Your task to perform on an android device: clear history in the chrome app Image 0: 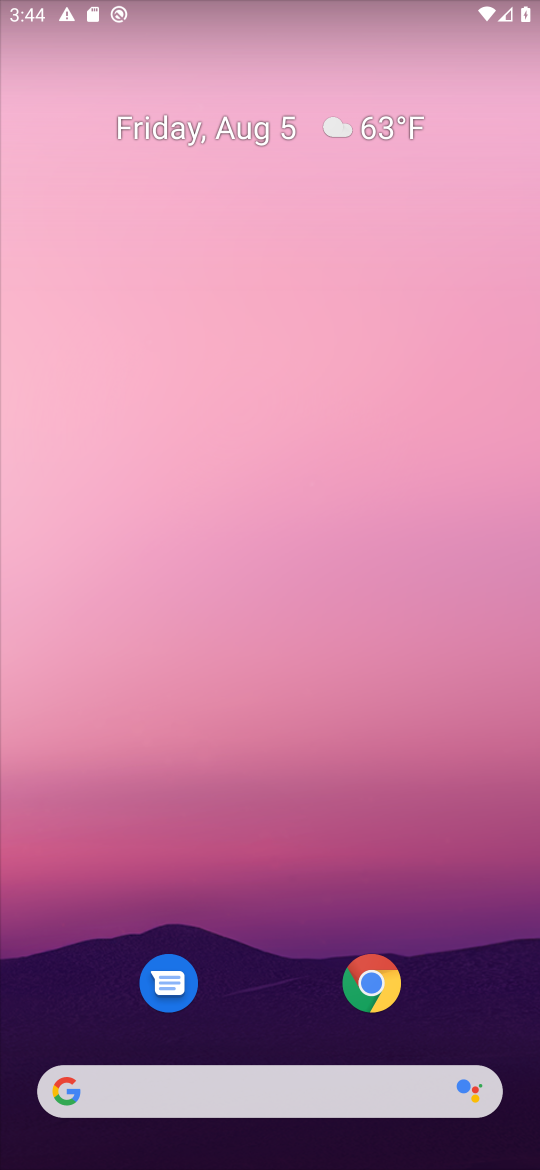
Step 0: click (380, 980)
Your task to perform on an android device: clear history in the chrome app Image 1: 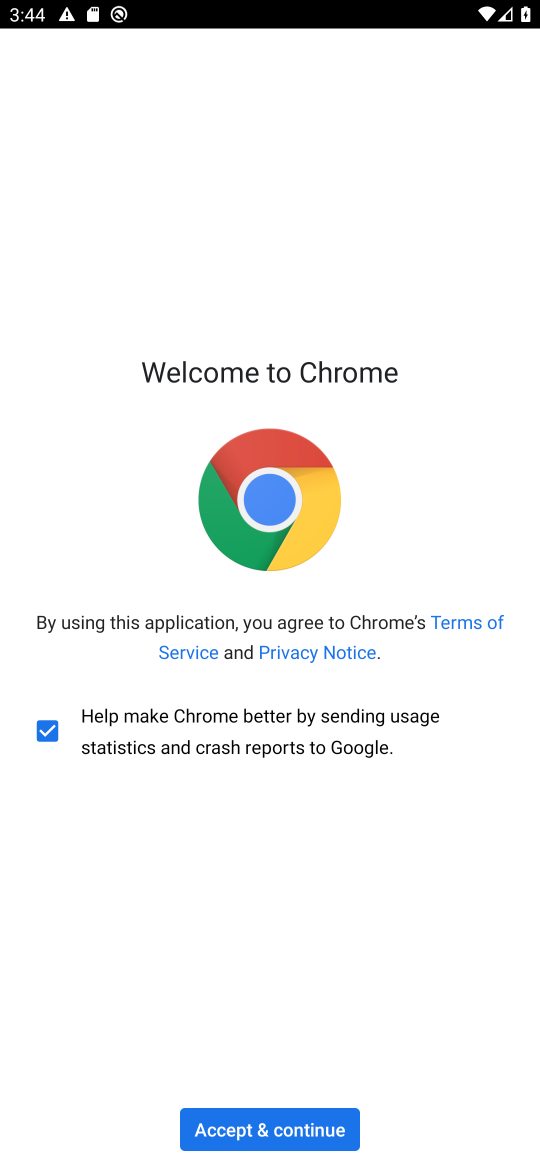
Step 1: click (284, 1139)
Your task to perform on an android device: clear history in the chrome app Image 2: 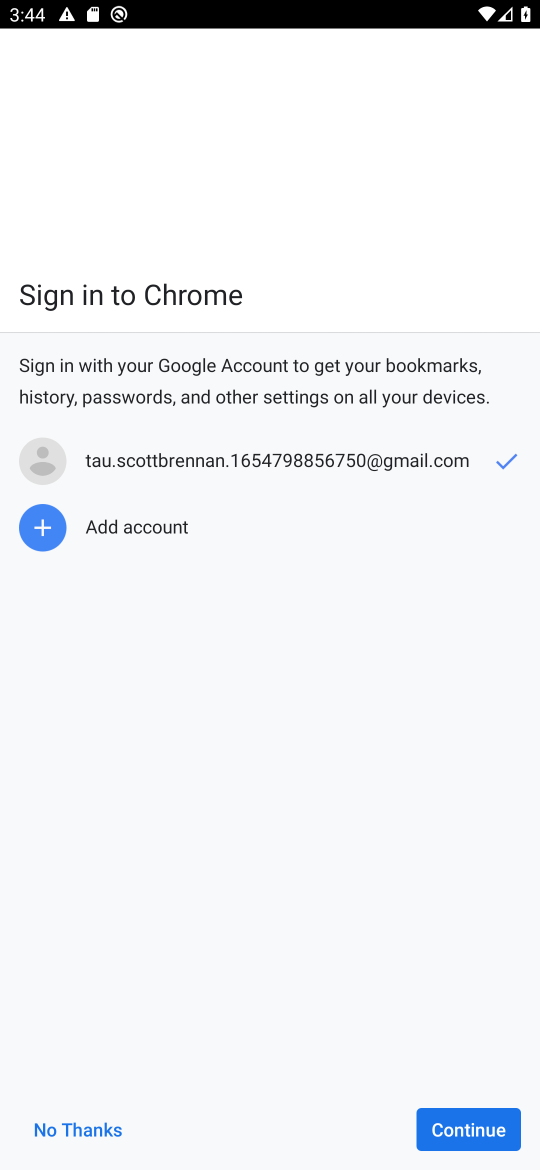
Step 2: click (458, 1137)
Your task to perform on an android device: clear history in the chrome app Image 3: 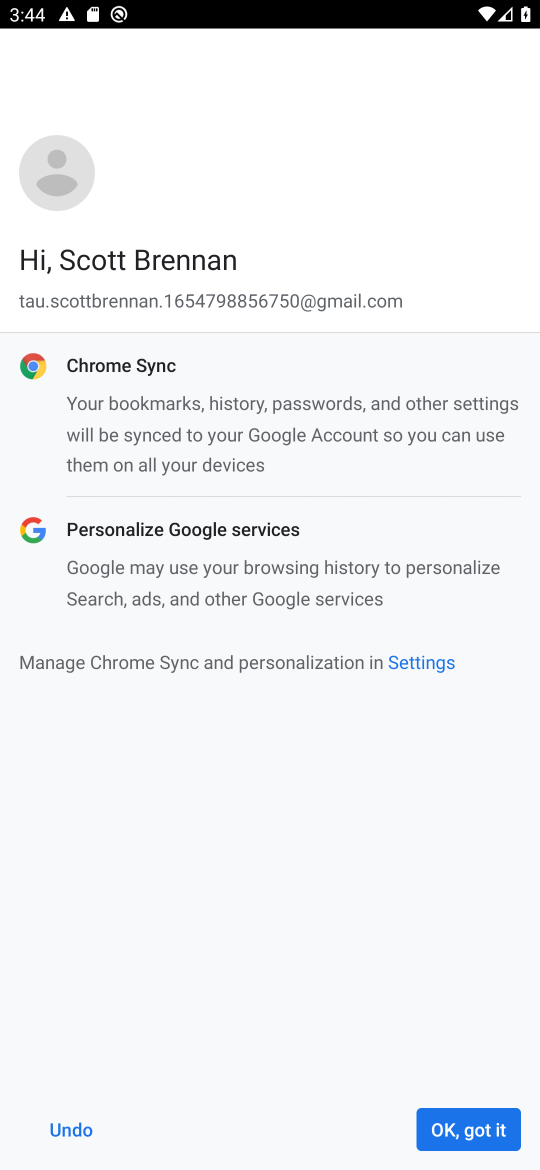
Step 3: click (473, 1128)
Your task to perform on an android device: clear history in the chrome app Image 4: 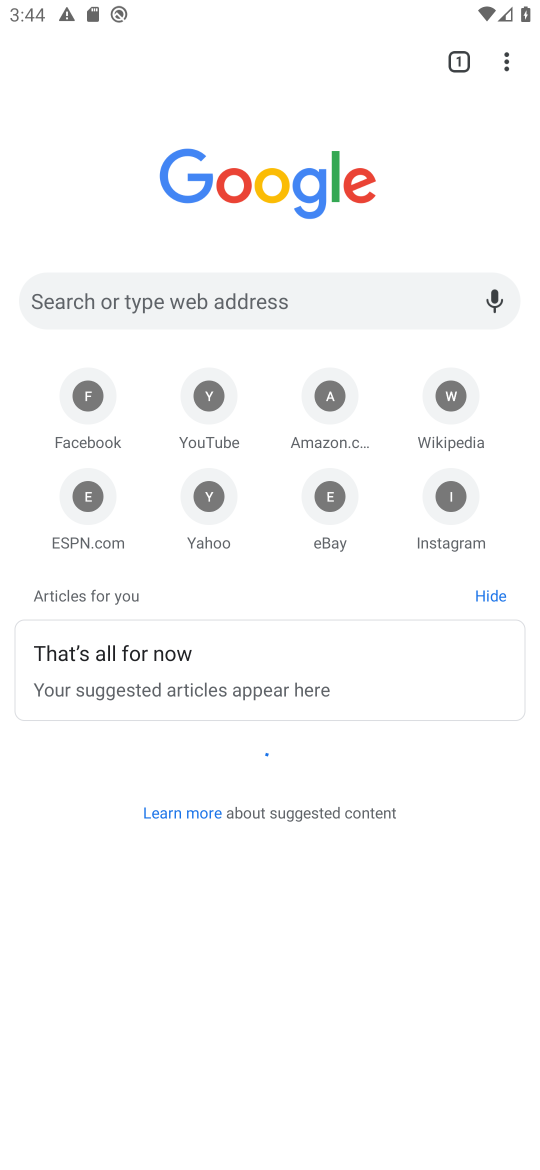
Step 4: click (505, 52)
Your task to perform on an android device: clear history in the chrome app Image 5: 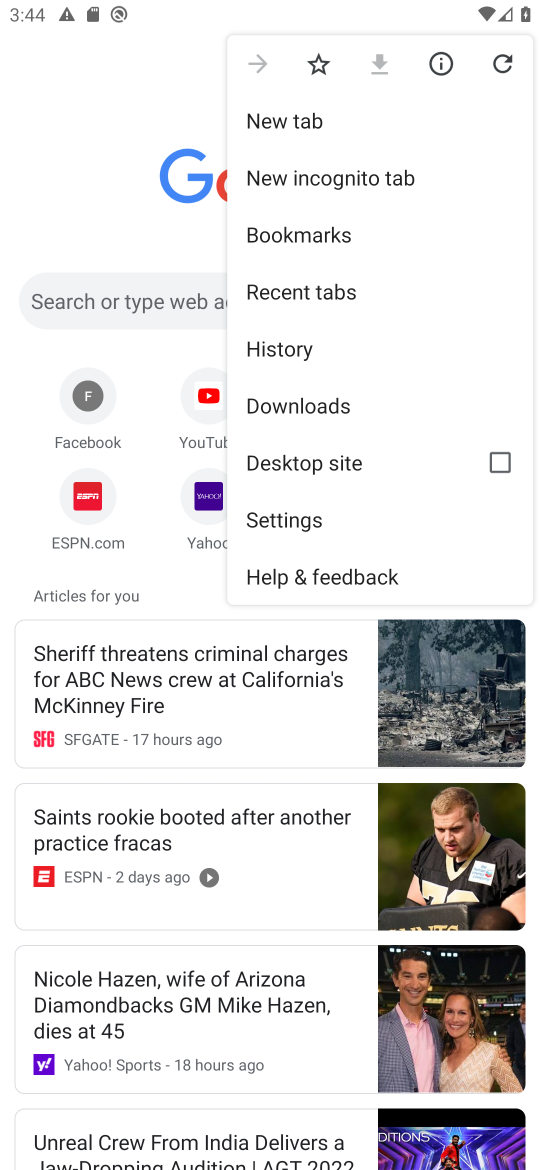
Step 5: click (271, 347)
Your task to perform on an android device: clear history in the chrome app Image 6: 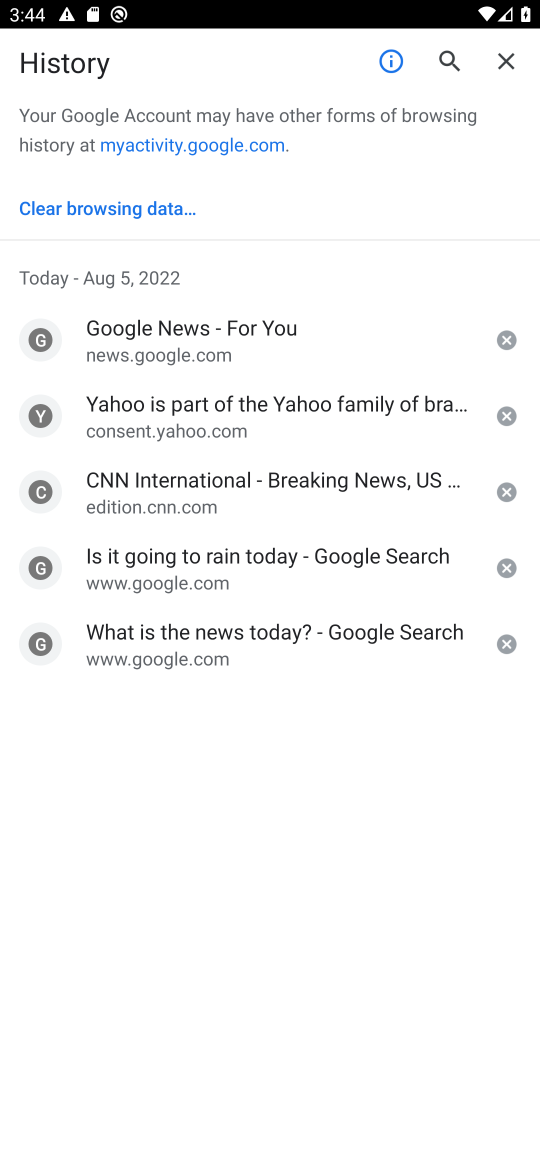
Step 6: click (49, 199)
Your task to perform on an android device: clear history in the chrome app Image 7: 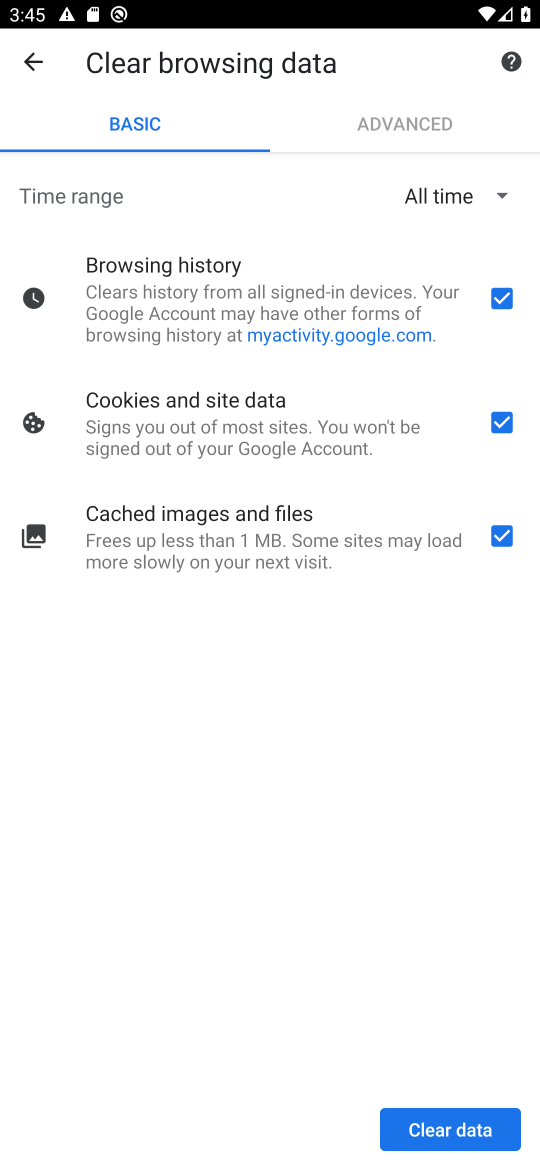
Step 7: click (424, 1125)
Your task to perform on an android device: clear history in the chrome app Image 8: 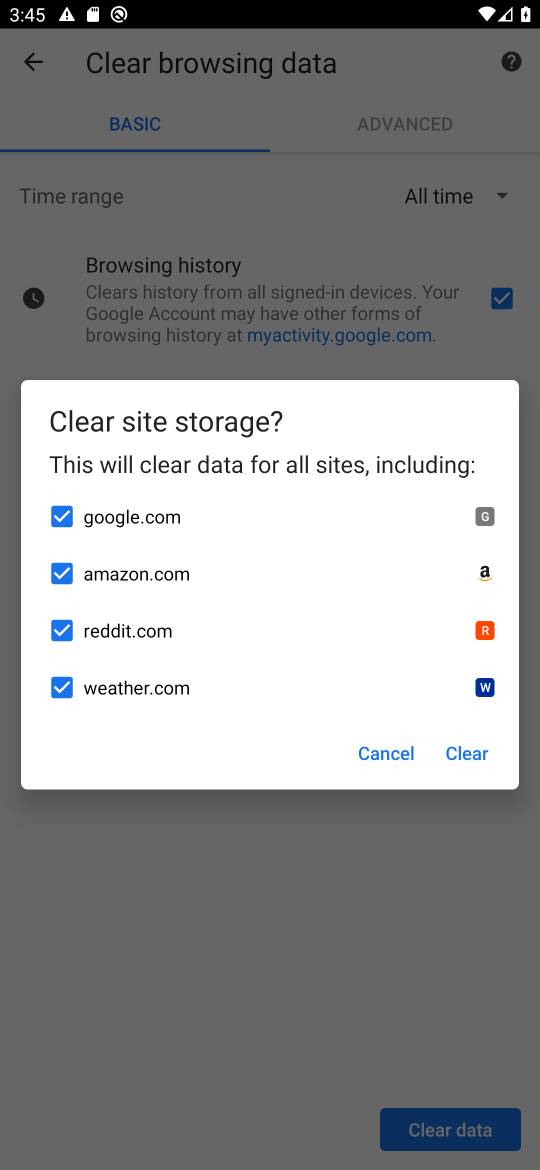
Step 8: click (473, 758)
Your task to perform on an android device: clear history in the chrome app Image 9: 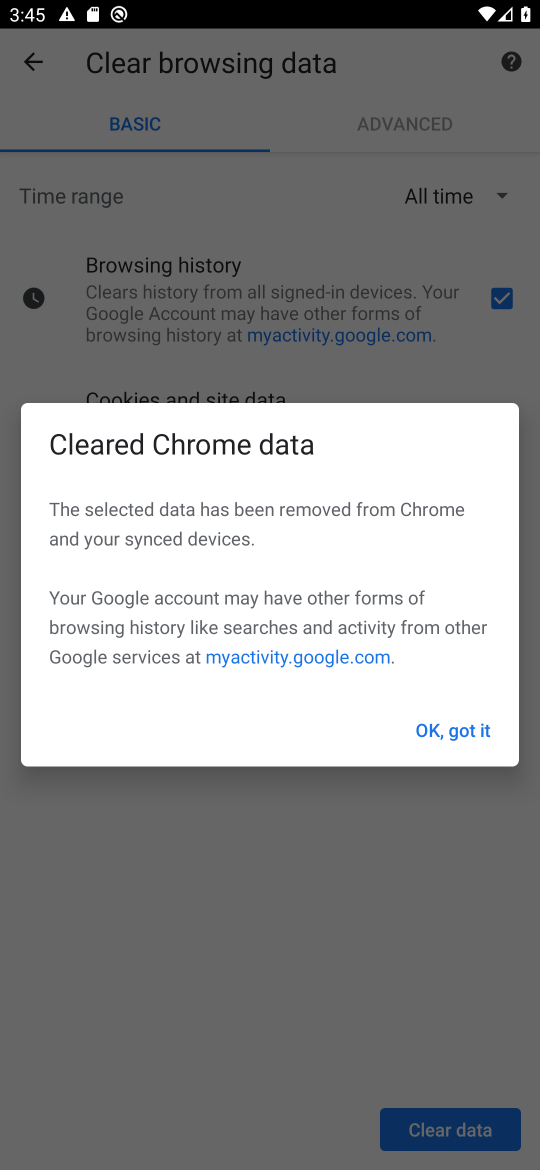
Step 9: click (473, 728)
Your task to perform on an android device: clear history in the chrome app Image 10: 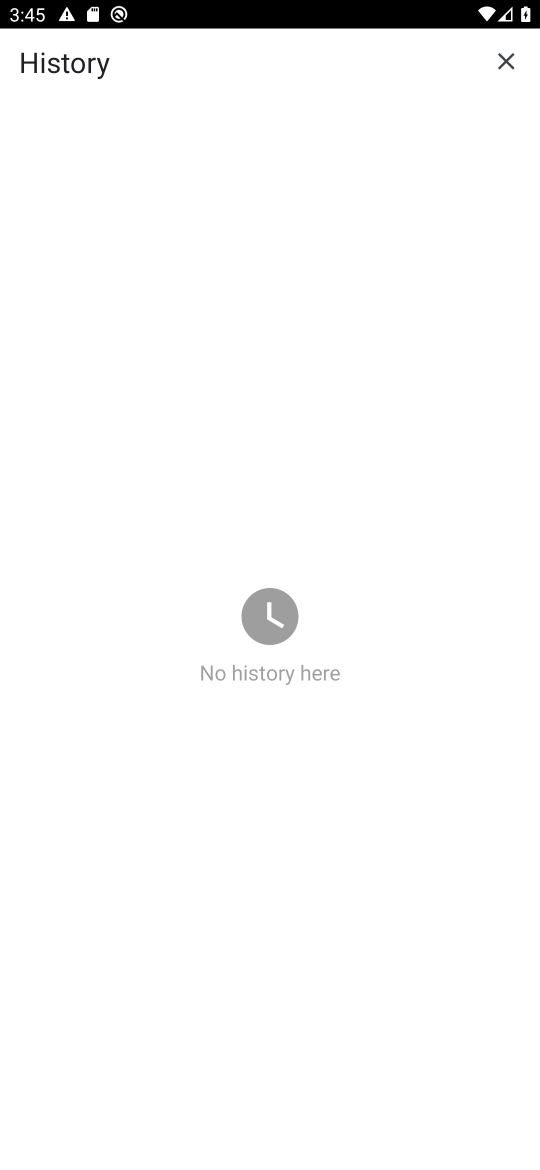
Step 10: task complete